Your task to perform on an android device: change the clock display to analog Image 0: 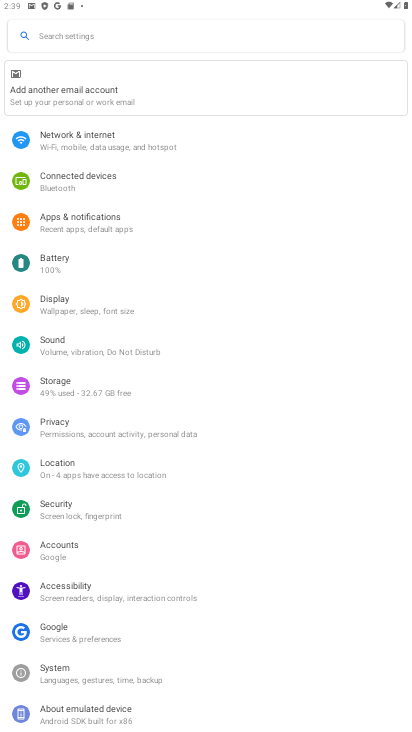
Step 0: press home button
Your task to perform on an android device: change the clock display to analog Image 1: 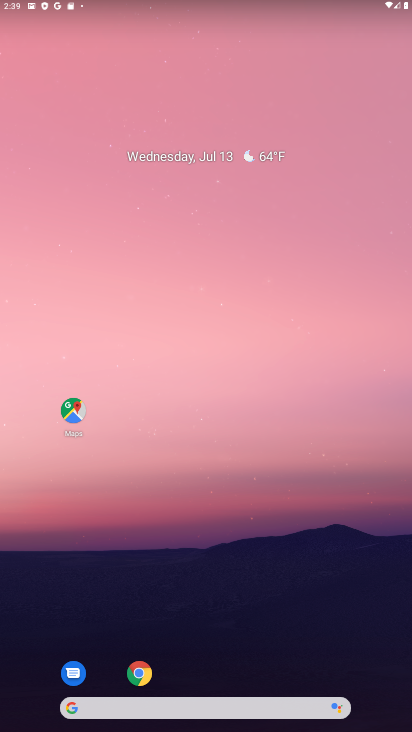
Step 1: drag from (290, 643) to (300, 47)
Your task to perform on an android device: change the clock display to analog Image 2: 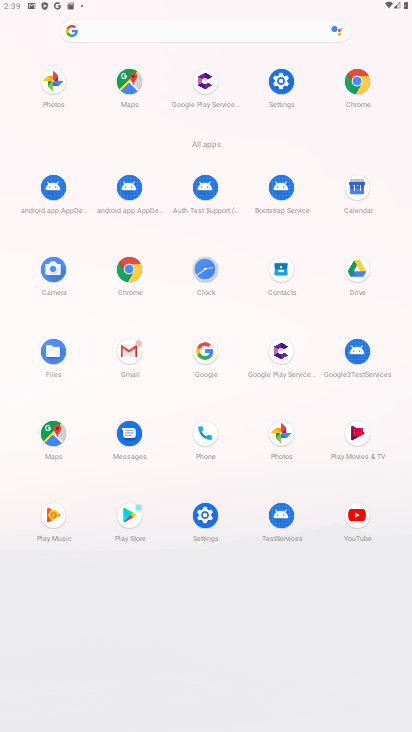
Step 2: click (206, 264)
Your task to perform on an android device: change the clock display to analog Image 3: 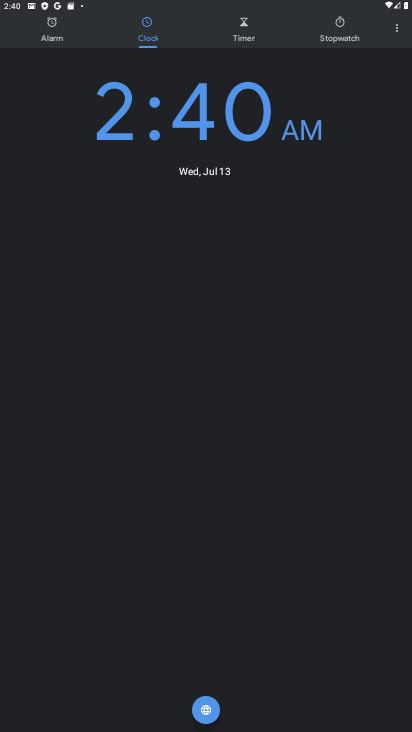
Step 3: click (395, 35)
Your task to perform on an android device: change the clock display to analog Image 4: 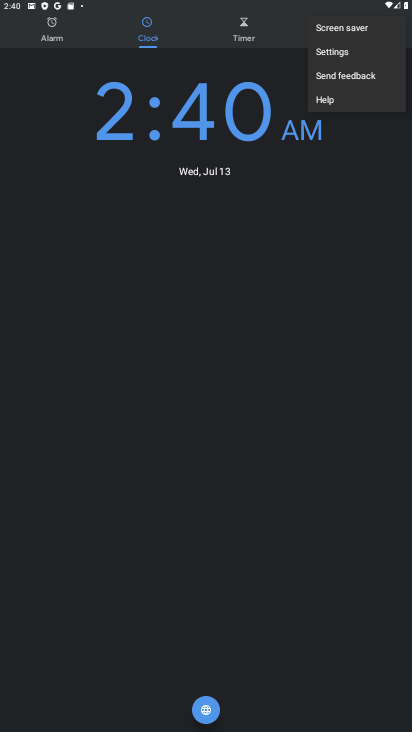
Step 4: click (331, 50)
Your task to perform on an android device: change the clock display to analog Image 5: 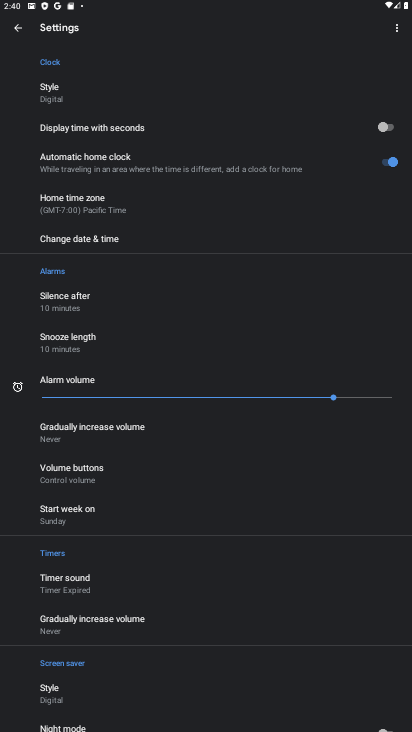
Step 5: drag from (84, 109) to (49, 386)
Your task to perform on an android device: change the clock display to analog Image 6: 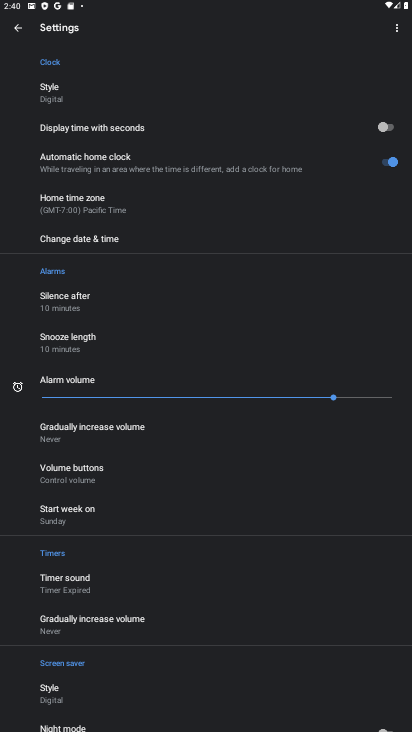
Step 6: click (56, 93)
Your task to perform on an android device: change the clock display to analog Image 7: 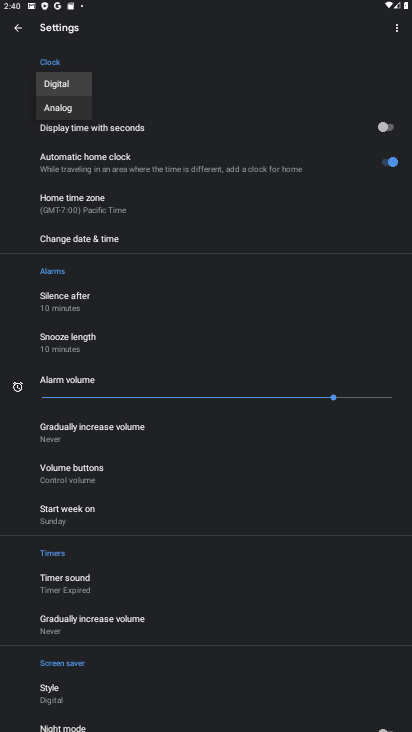
Step 7: click (71, 113)
Your task to perform on an android device: change the clock display to analog Image 8: 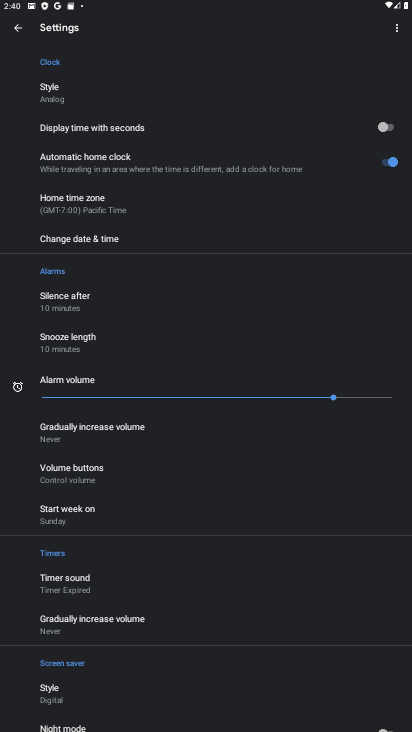
Step 8: task complete